Your task to perform on an android device: Clear all items from cart on ebay.com. Search for duracell triple a on ebay.com, select the first entry, add it to the cart, then select checkout. Image 0: 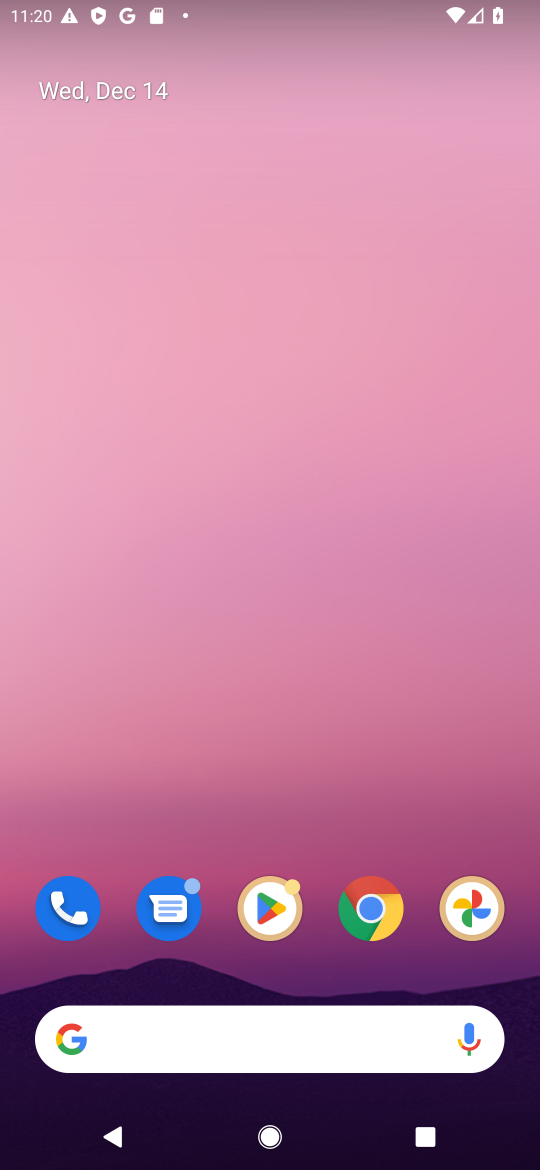
Step 0: click (390, 936)
Your task to perform on an android device: Clear all items from cart on ebay.com. Search for duracell triple a on ebay.com, select the first entry, add it to the cart, then select checkout. Image 1: 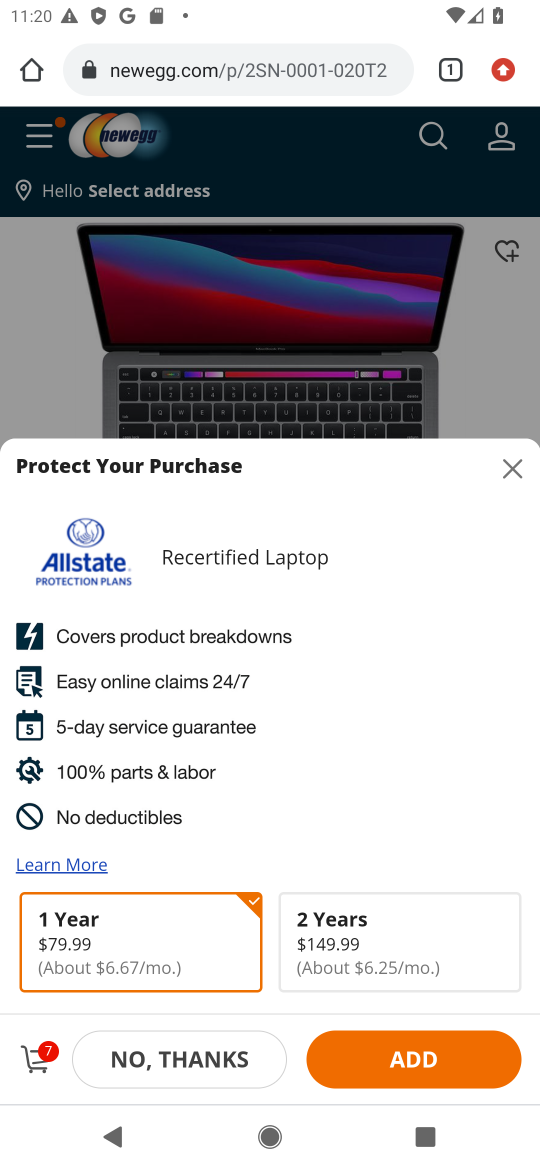
Step 1: click (267, 80)
Your task to perform on an android device: Clear all items from cart on ebay.com. Search for duracell triple a on ebay.com, select the first entry, add it to the cart, then select checkout. Image 2: 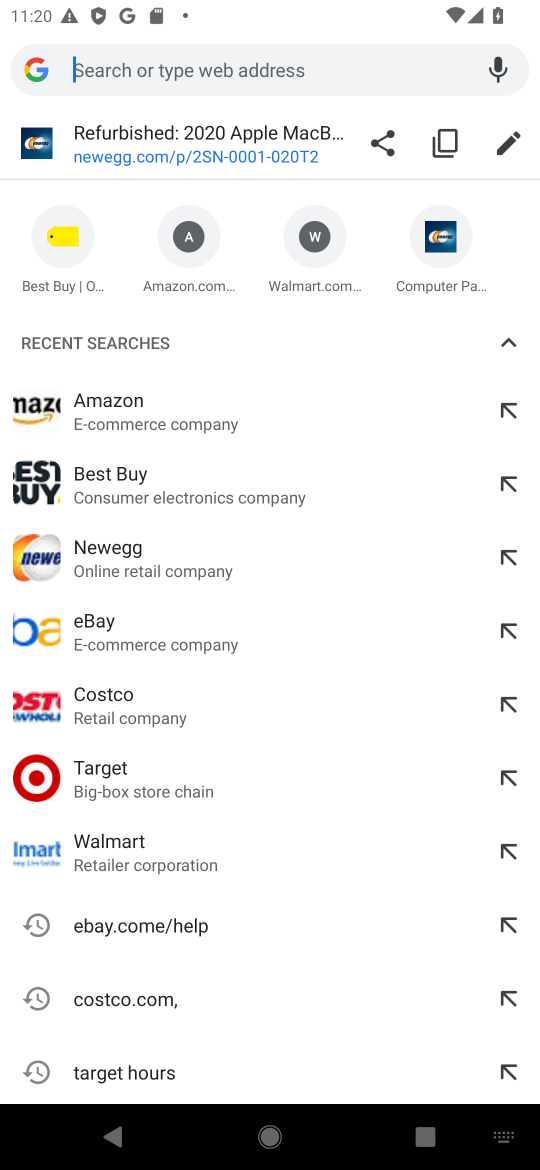
Step 2: click (172, 640)
Your task to perform on an android device: Clear all items from cart on ebay.com. Search for duracell triple a on ebay.com, select the first entry, add it to the cart, then select checkout. Image 3: 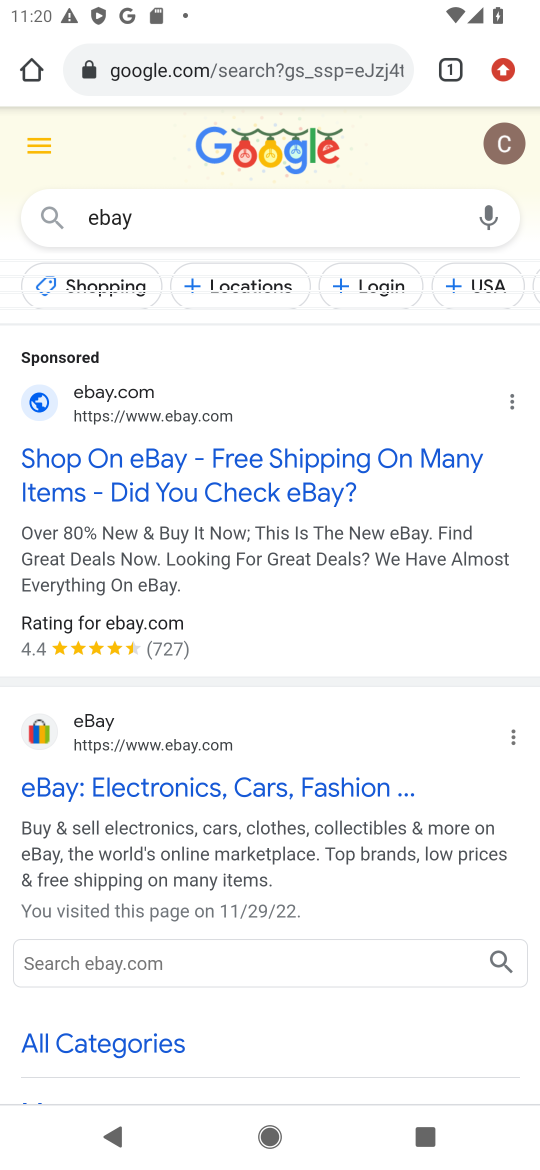
Step 3: click (84, 465)
Your task to perform on an android device: Clear all items from cart on ebay.com. Search for duracell triple a on ebay.com, select the first entry, add it to the cart, then select checkout. Image 4: 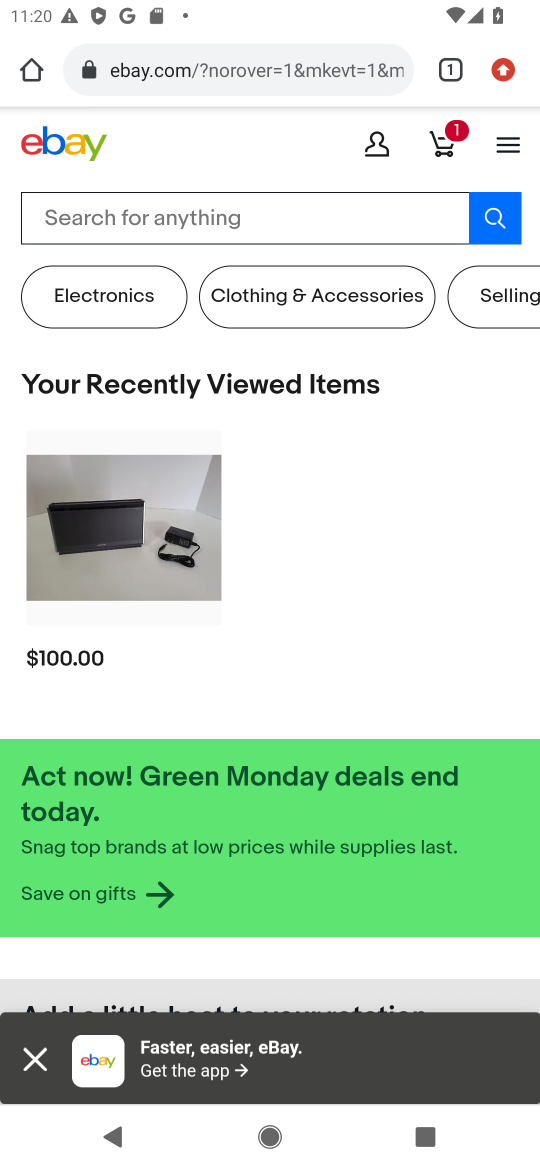
Step 4: click (267, 217)
Your task to perform on an android device: Clear all items from cart on ebay.com. Search for duracell triple a on ebay.com, select the first entry, add it to the cart, then select checkout. Image 5: 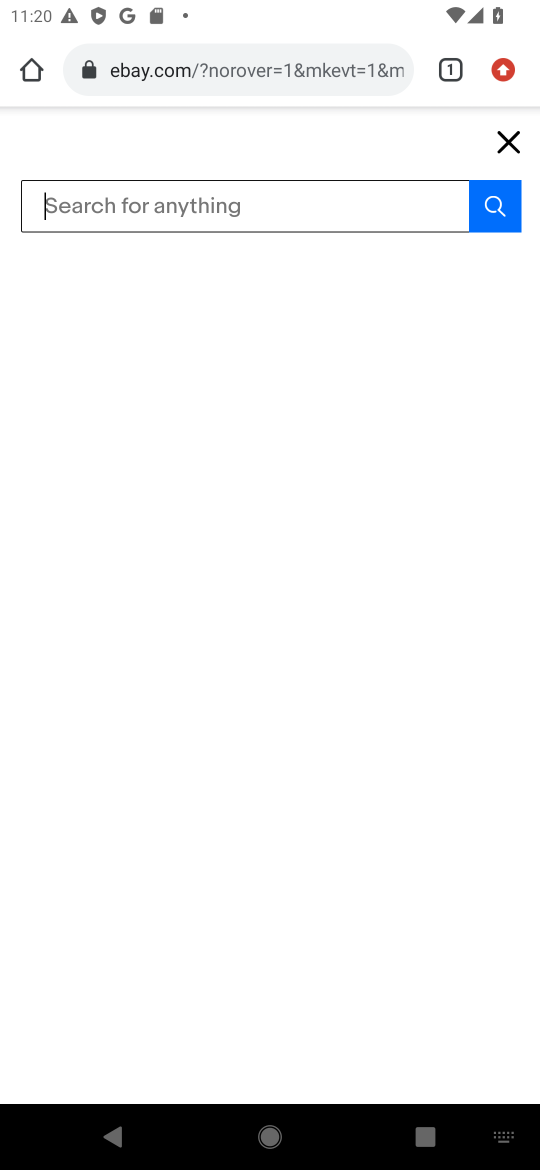
Step 5: type "duracell triple a"
Your task to perform on an android device: Clear all items from cart on ebay.com. Search for duracell triple a on ebay.com, select the first entry, add it to the cart, then select checkout. Image 6: 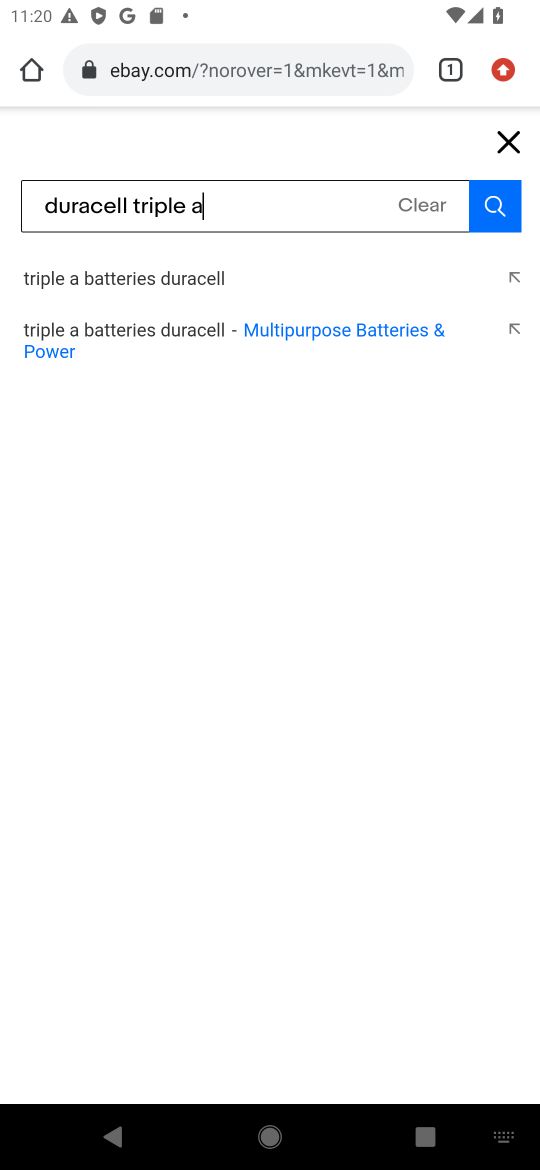
Step 6: click (508, 213)
Your task to perform on an android device: Clear all items from cart on ebay.com. Search for duracell triple a on ebay.com, select the first entry, add it to the cart, then select checkout. Image 7: 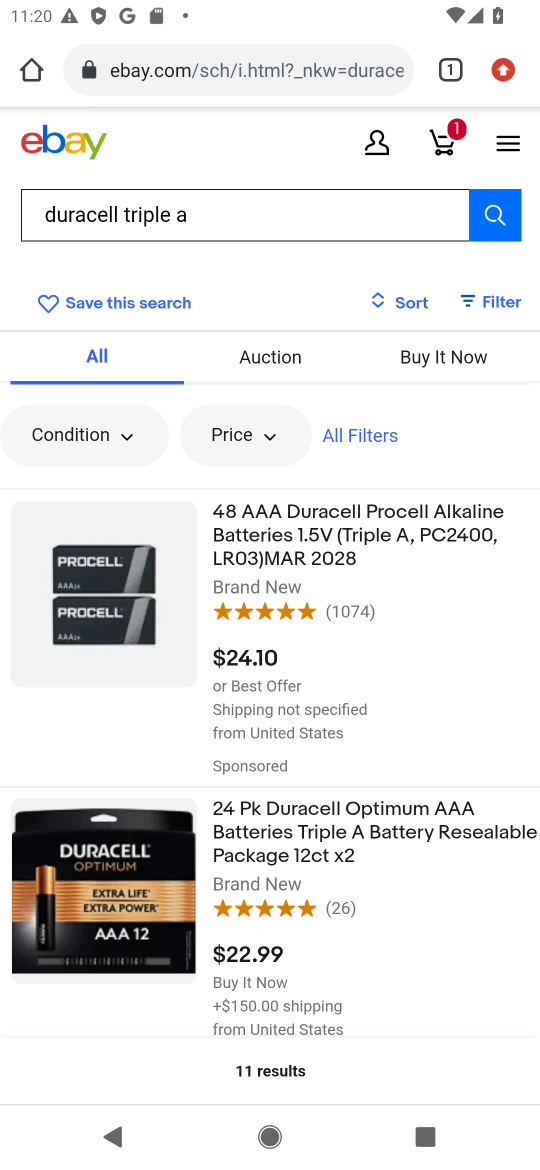
Step 7: click (297, 803)
Your task to perform on an android device: Clear all items from cart on ebay.com. Search for duracell triple a on ebay.com, select the first entry, add it to the cart, then select checkout. Image 8: 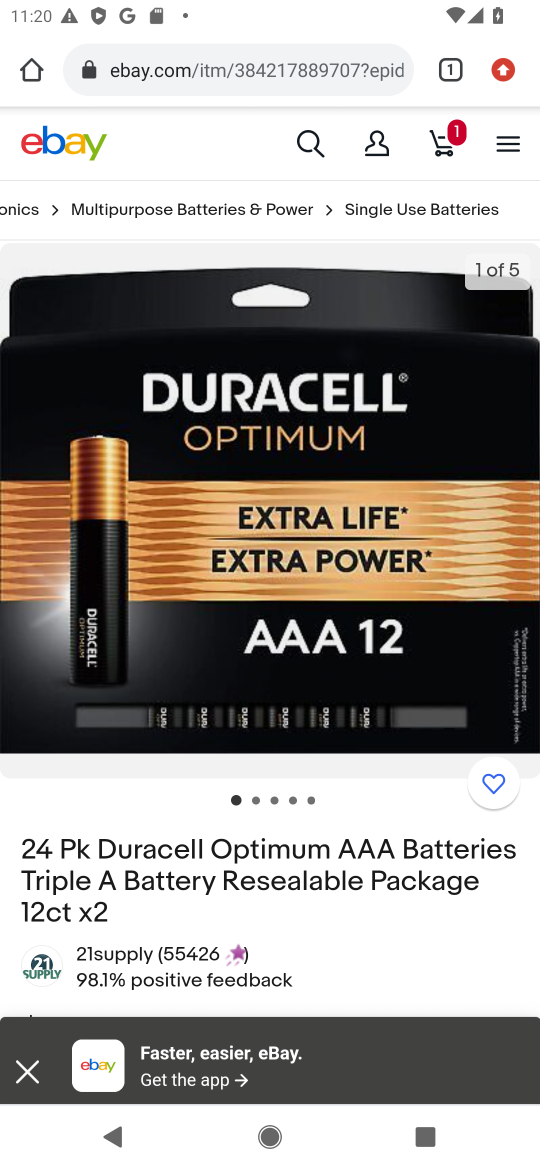
Step 8: drag from (413, 970) to (360, 322)
Your task to perform on an android device: Clear all items from cart on ebay.com. Search for duracell triple a on ebay.com, select the first entry, add it to the cart, then select checkout. Image 9: 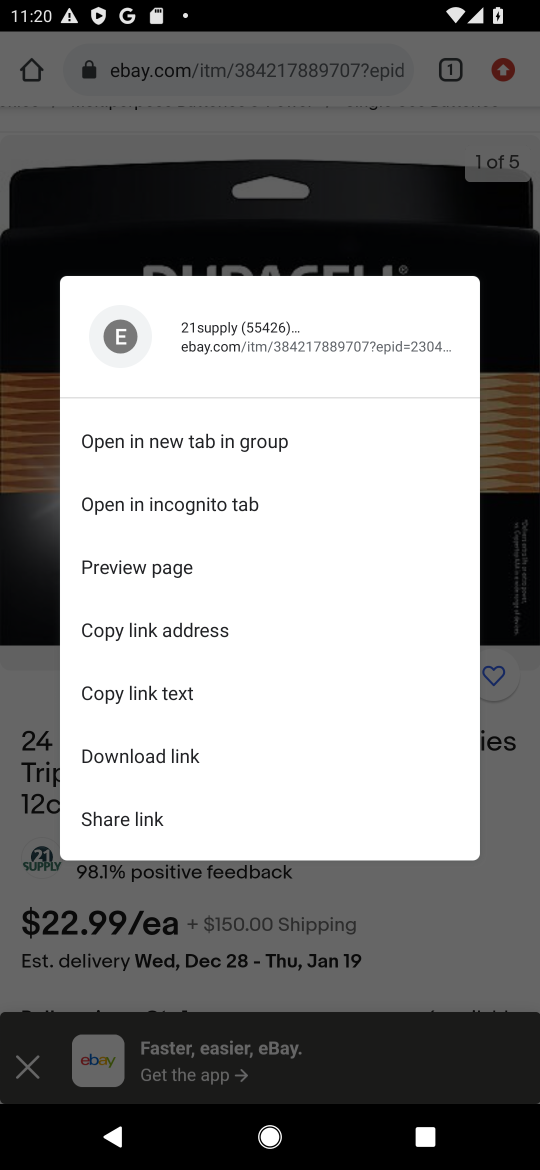
Step 9: click (420, 974)
Your task to perform on an android device: Clear all items from cart on ebay.com. Search for duracell triple a on ebay.com, select the first entry, add it to the cart, then select checkout. Image 10: 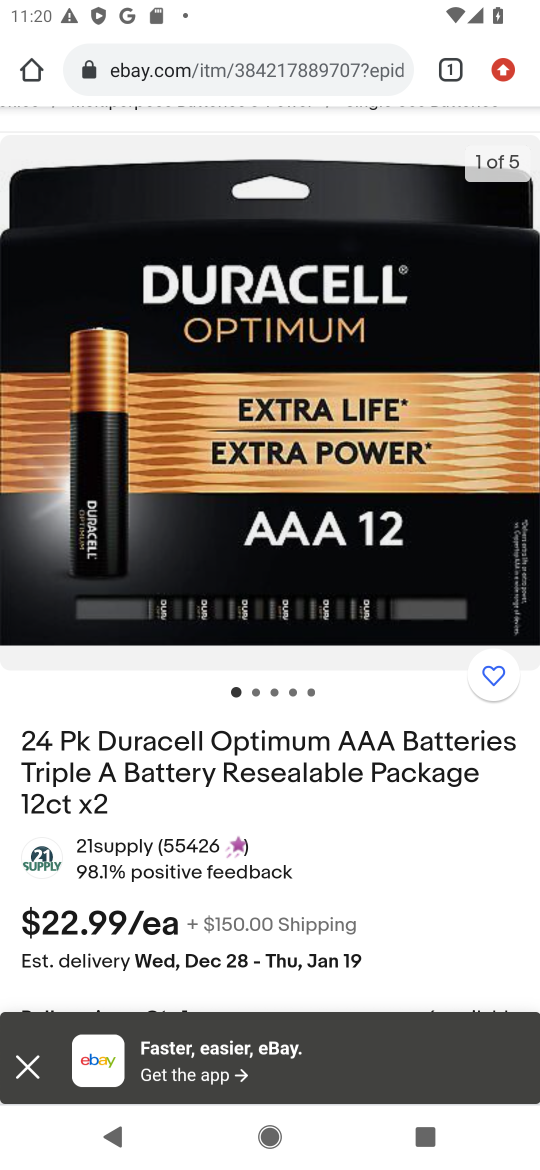
Step 10: drag from (414, 974) to (417, 559)
Your task to perform on an android device: Clear all items from cart on ebay.com. Search for duracell triple a on ebay.com, select the first entry, add it to the cart, then select checkout. Image 11: 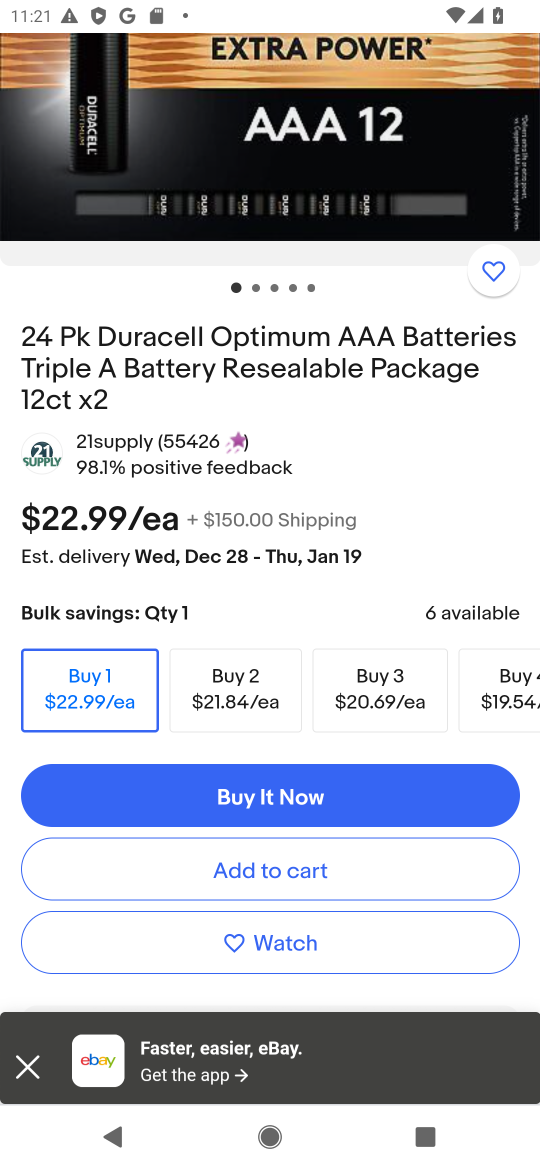
Step 11: click (343, 882)
Your task to perform on an android device: Clear all items from cart on ebay.com. Search for duracell triple a on ebay.com, select the first entry, add it to the cart, then select checkout. Image 12: 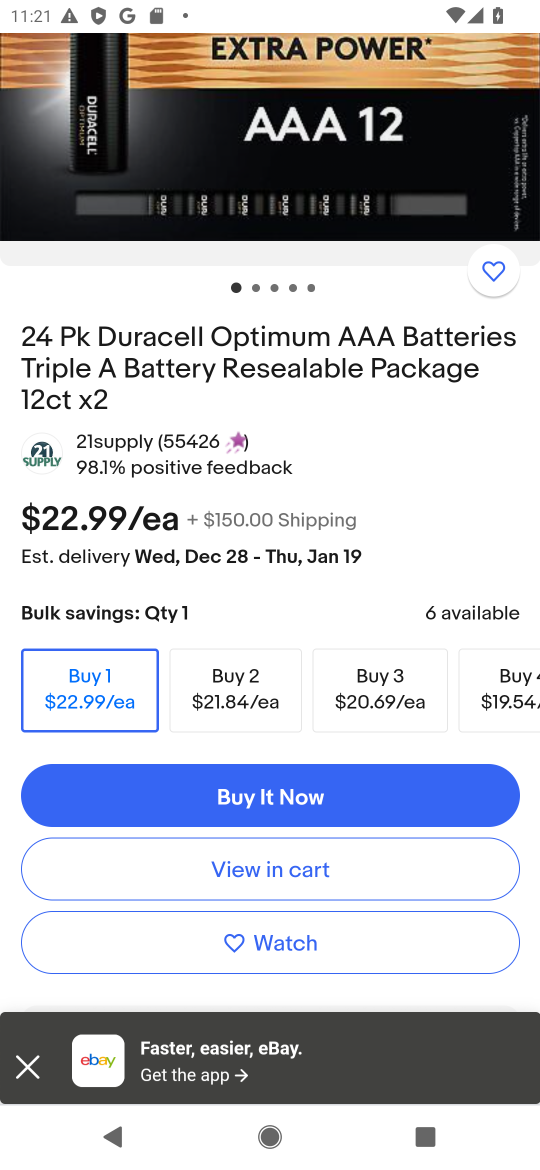
Step 12: task complete